Your task to perform on an android device: open a new tab in the chrome app Image 0: 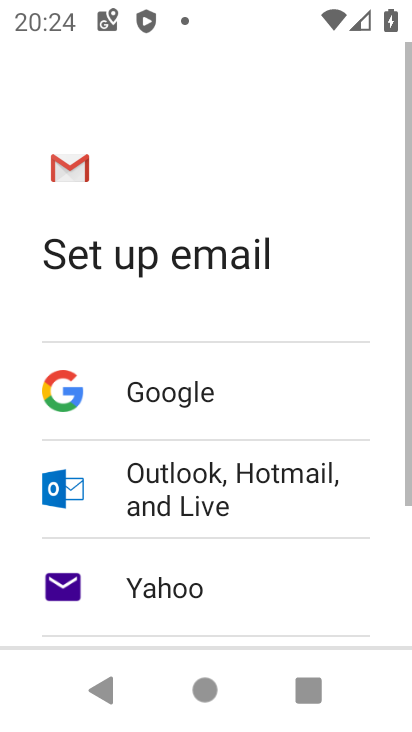
Step 0: press home button
Your task to perform on an android device: open a new tab in the chrome app Image 1: 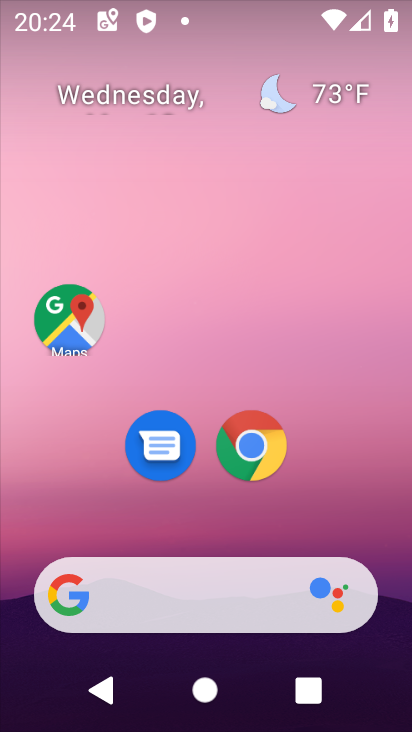
Step 1: click (243, 437)
Your task to perform on an android device: open a new tab in the chrome app Image 2: 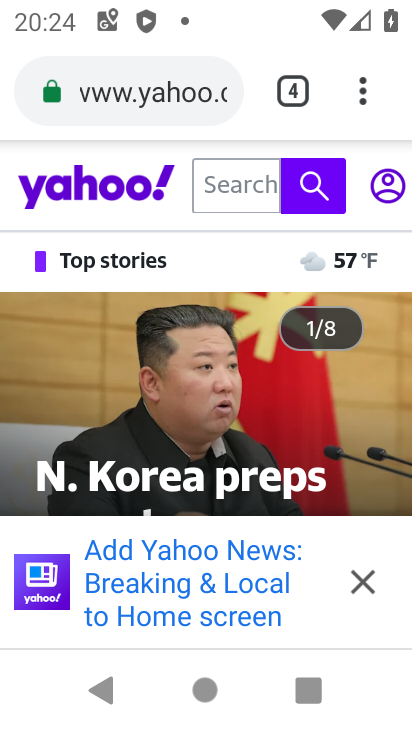
Step 2: click (378, 96)
Your task to perform on an android device: open a new tab in the chrome app Image 3: 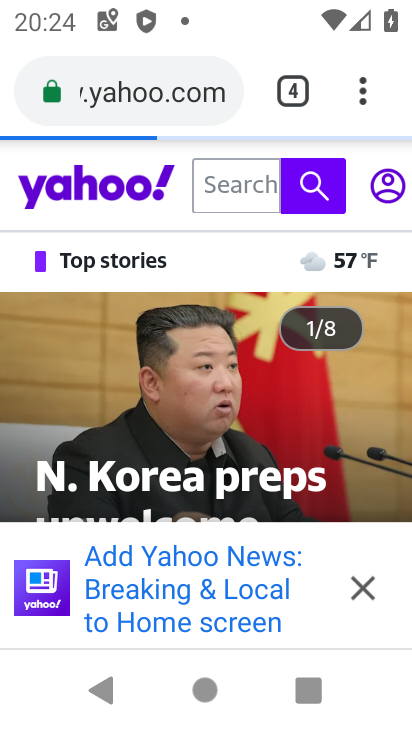
Step 3: click (371, 85)
Your task to perform on an android device: open a new tab in the chrome app Image 4: 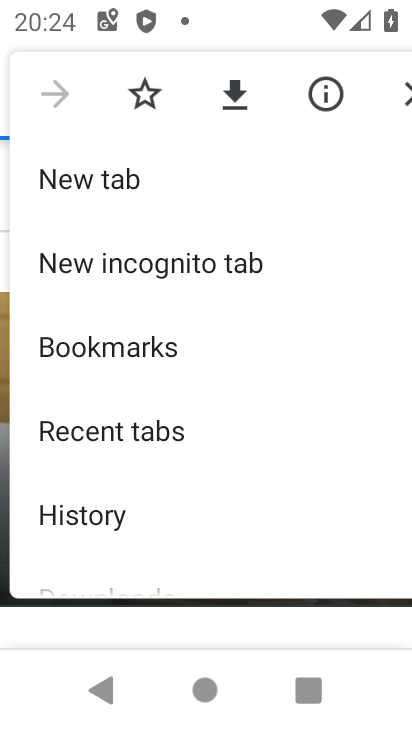
Step 4: click (101, 172)
Your task to perform on an android device: open a new tab in the chrome app Image 5: 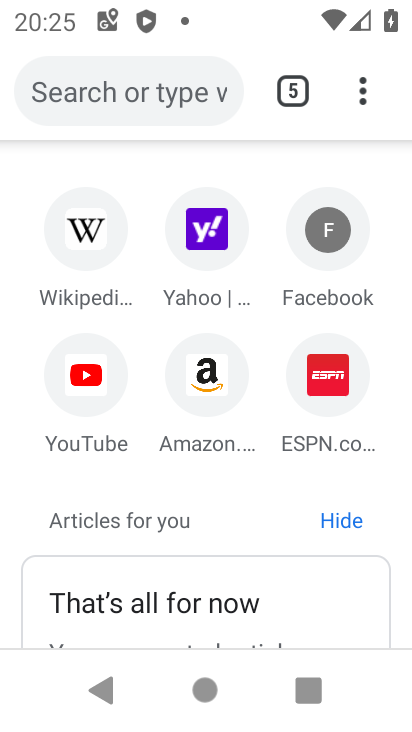
Step 5: task complete